Your task to perform on an android device: Open display settings Image 0: 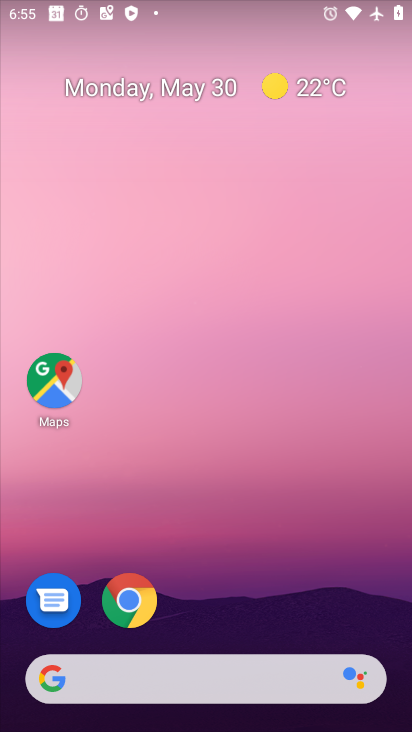
Step 0: press home button
Your task to perform on an android device: Open display settings Image 1: 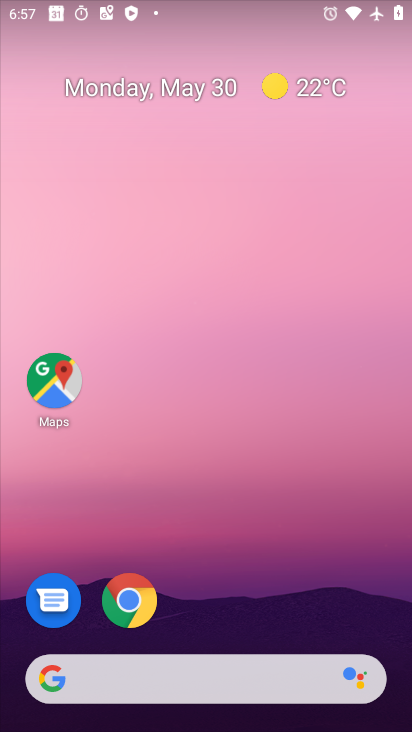
Step 1: drag from (284, 623) to (260, 131)
Your task to perform on an android device: Open display settings Image 2: 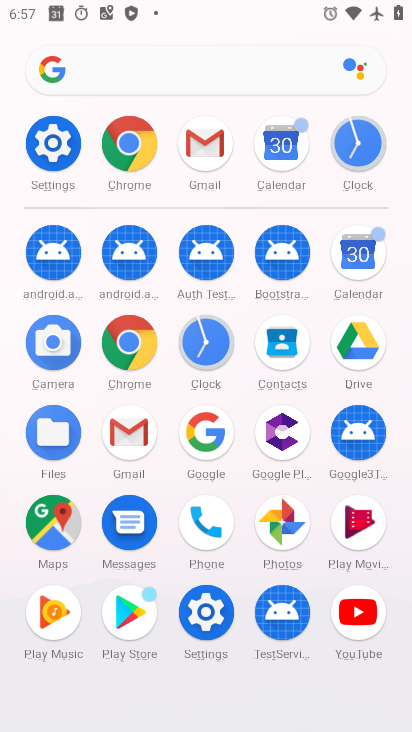
Step 2: click (61, 139)
Your task to perform on an android device: Open display settings Image 3: 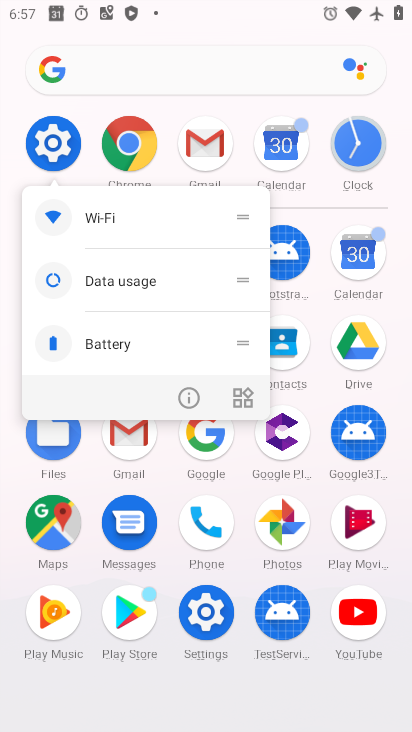
Step 3: click (65, 148)
Your task to perform on an android device: Open display settings Image 4: 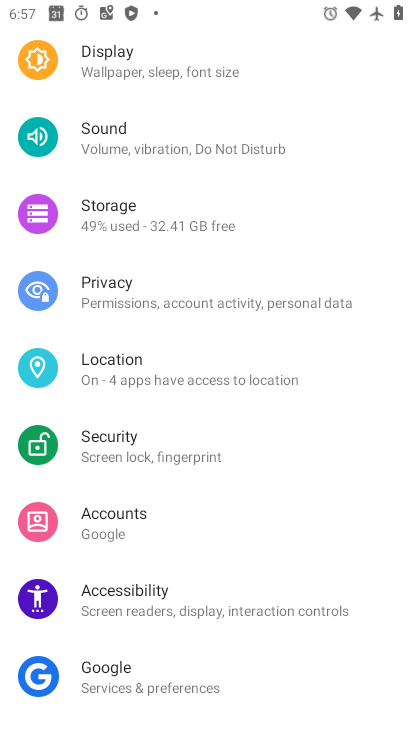
Step 4: click (116, 61)
Your task to perform on an android device: Open display settings Image 5: 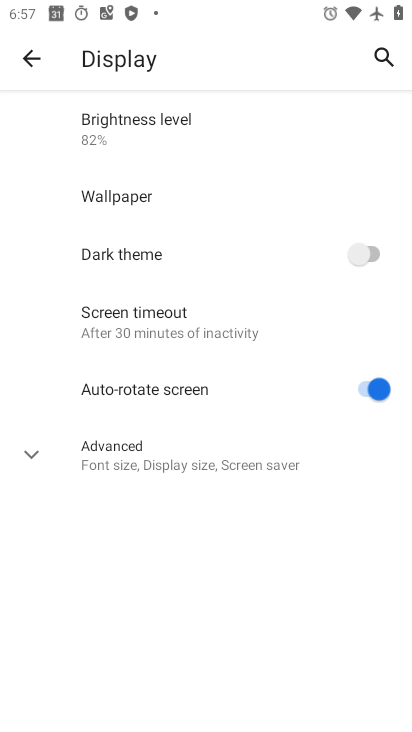
Step 5: task complete